Your task to perform on an android device: Search for "usb-b" on walmart, select the first entry, and add it to the cart. Image 0: 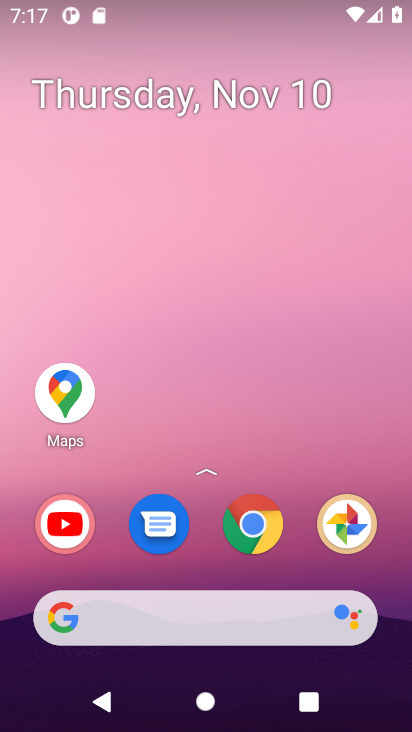
Step 0: click (250, 520)
Your task to perform on an android device: Search for "usb-b" on walmart, select the first entry, and add it to the cart. Image 1: 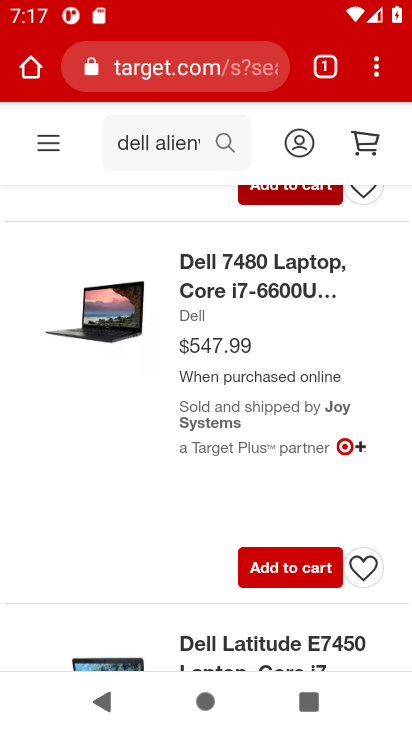
Step 1: click (328, 68)
Your task to perform on an android device: Search for "usb-b" on walmart, select the first entry, and add it to the cart. Image 2: 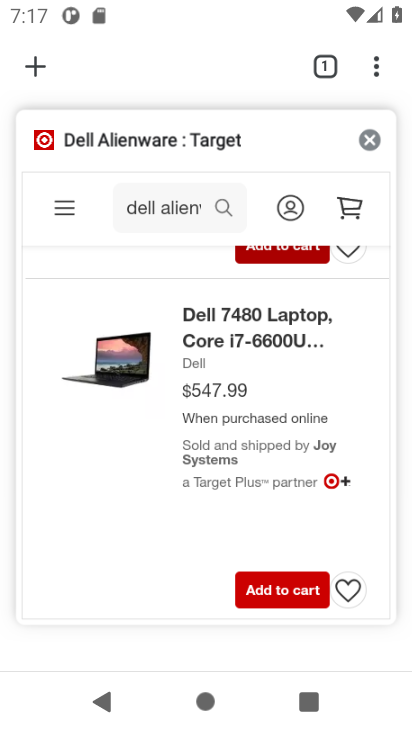
Step 2: click (35, 64)
Your task to perform on an android device: Search for "usb-b" on walmart, select the first entry, and add it to the cart. Image 3: 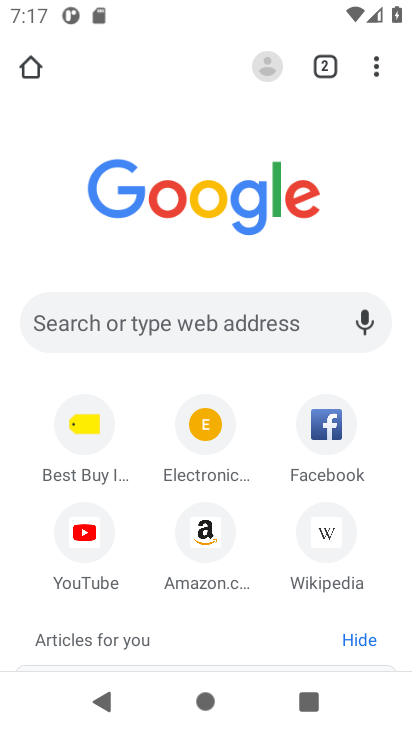
Step 3: click (149, 317)
Your task to perform on an android device: Search for "usb-b" on walmart, select the first entry, and add it to the cart. Image 4: 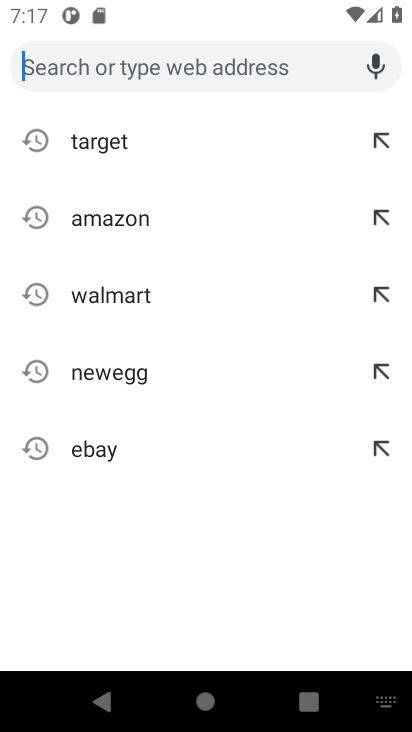
Step 4: click (105, 297)
Your task to perform on an android device: Search for "usb-b" on walmart, select the first entry, and add it to the cart. Image 5: 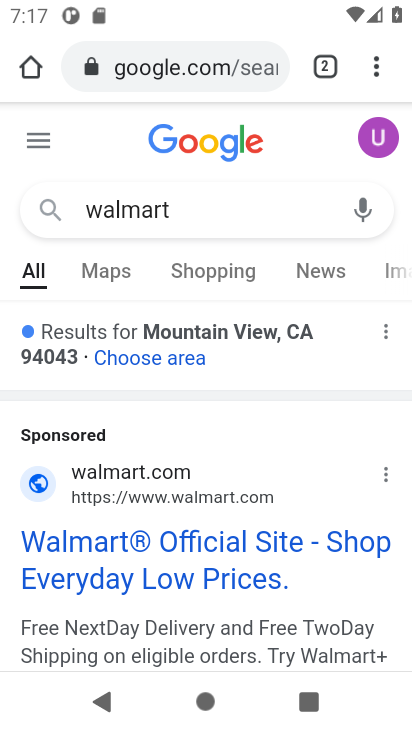
Step 5: click (141, 545)
Your task to perform on an android device: Search for "usb-b" on walmart, select the first entry, and add it to the cart. Image 6: 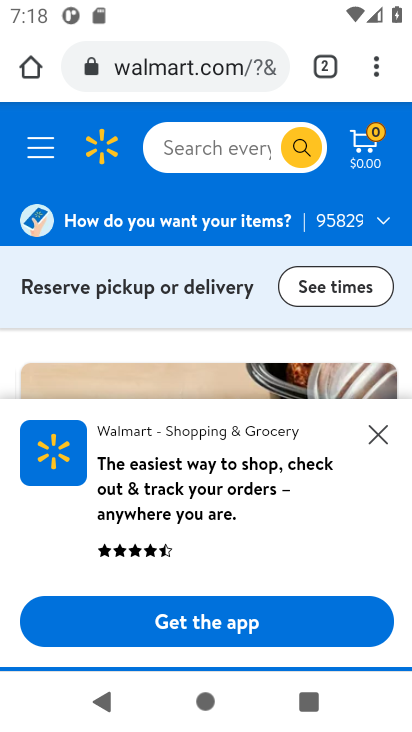
Step 6: click (378, 430)
Your task to perform on an android device: Search for "usb-b" on walmart, select the first entry, and add it to the cart. Image 7: 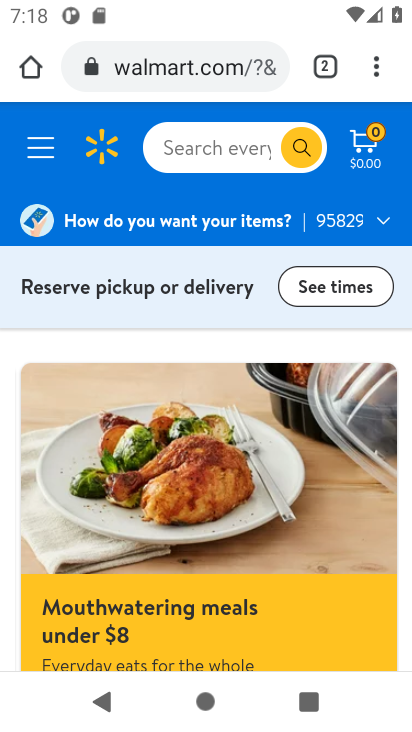
Step 7: click (202, 157)
Your task to perform on an android device: Search for "usb-b" on walmart, select the first entry, and add it to the cart. Image 8: 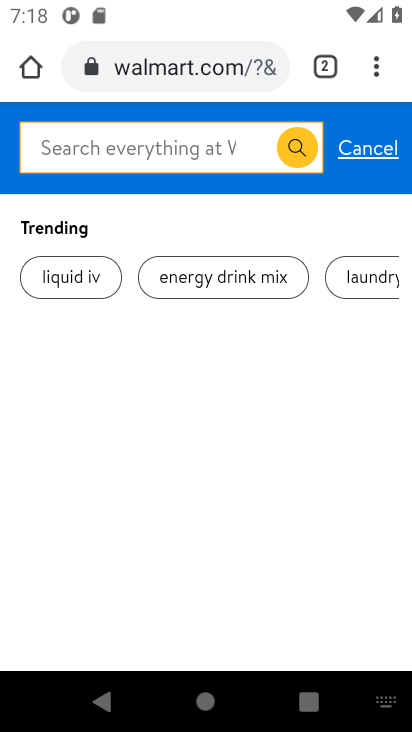
Step 8: type "usb-b"
Your task to perform on an android device: Search for "usb-b" on walmart, select the first entry, and add it to the cart. Image 9: 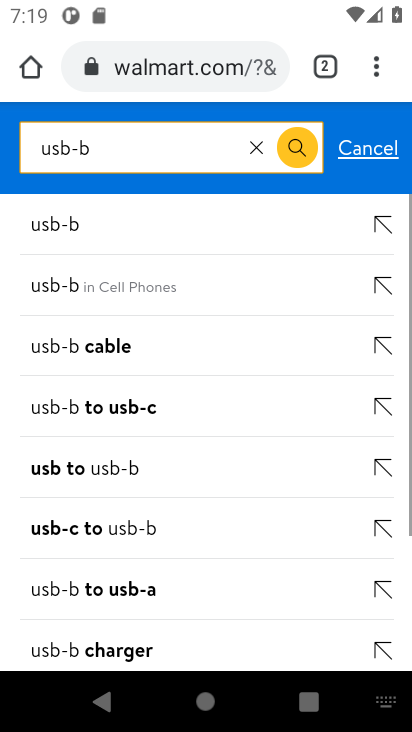
Step 9: click (55, 285)
Your task to perform on an android device: Search for "usb-b" on walmart, select the first entry, and add it to the cart. Image 10: 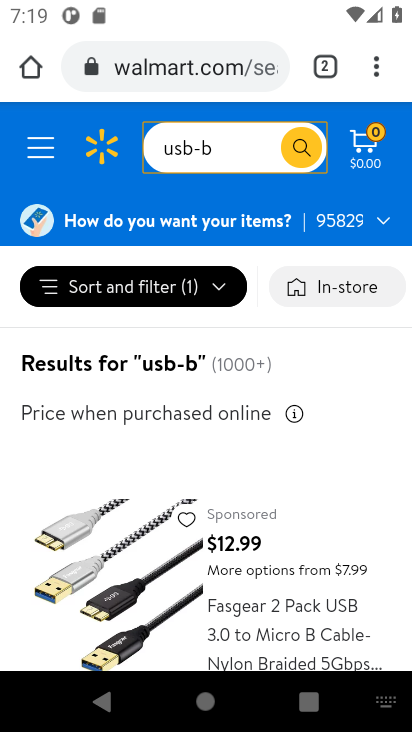
Step 10: drag from (317, 526) to (294, 288)
Your task to perform on an android device: Search for "usb-b" on walmart, select the first entry, and add it to the cart. Image 11: 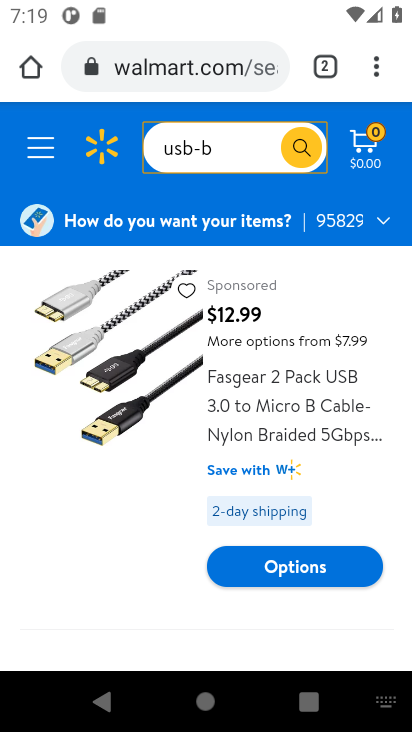
Step 11: click (321, 401)
Your task to perform on an android device: Search for "usb-b" on walmart, select the first entry, and add it to the cart. Image 12: 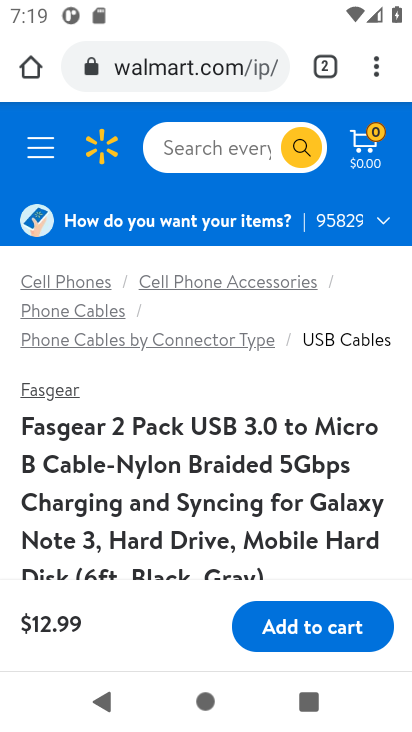
Step 12: click (306, 623)
Your task to perform on an android device: Search for "usb-b" on walmart, select the first entry, and add it to the cart. Image 13: 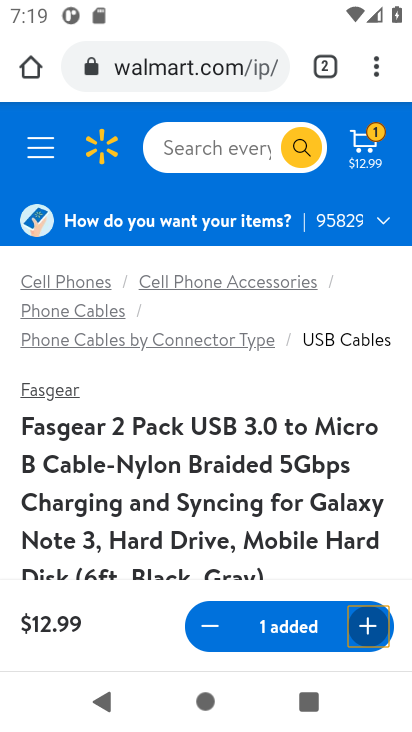
Step 13: task complete